Your task to perform on an android device: Open Youtube and go to "Your channel" Image 0: 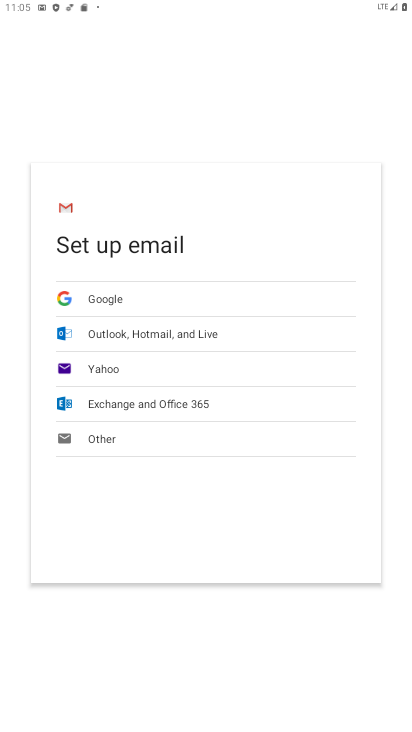
Step 0: press home button
Your task to perform on an android device: Open Youtube and go to "Your channel" Image 1: 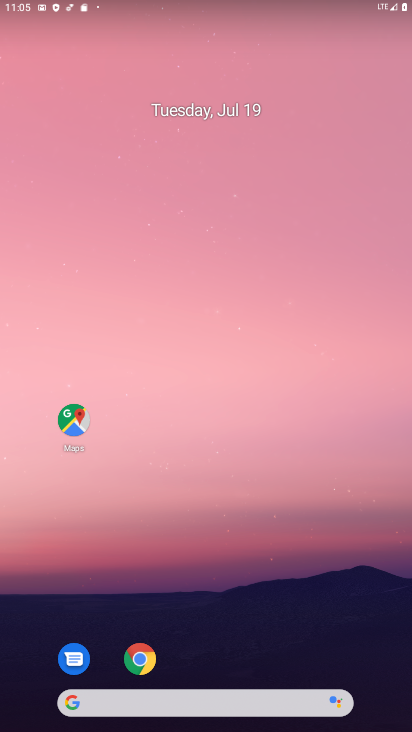
Step 1: drag from (243, 626) to (250, 363)
Your task to perform on an android device: Open Youtube and go to "Your channel" Image 2: 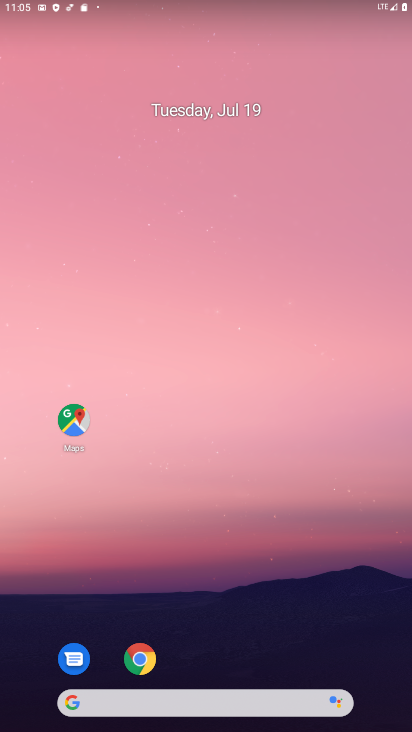
Step 2: drag from (253, 621) to (316, 248)
Your task to perform on an android device: Open Youtube and go to "Your channel" Image 3: 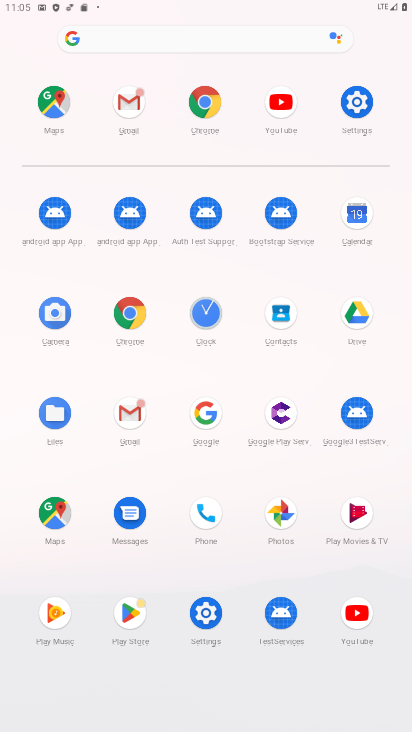
Step 3: click (359, 612)
Your task to perform on an android device: Open Youtube and go to "Your channel" Image 4: 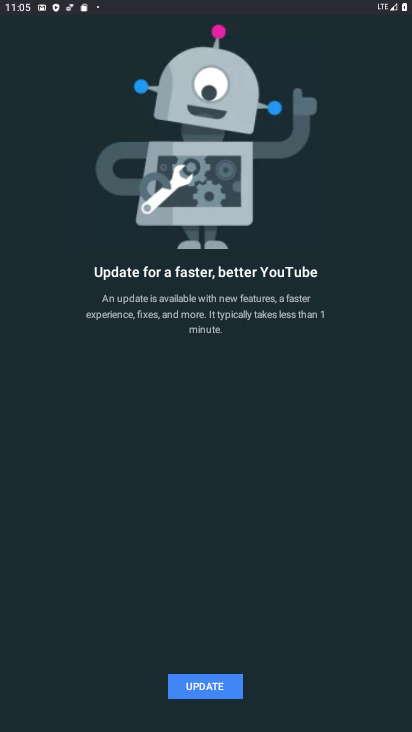
Step 4: task complete